Your task to perform on an android device: turn on data saver in the chrome app Image 0: 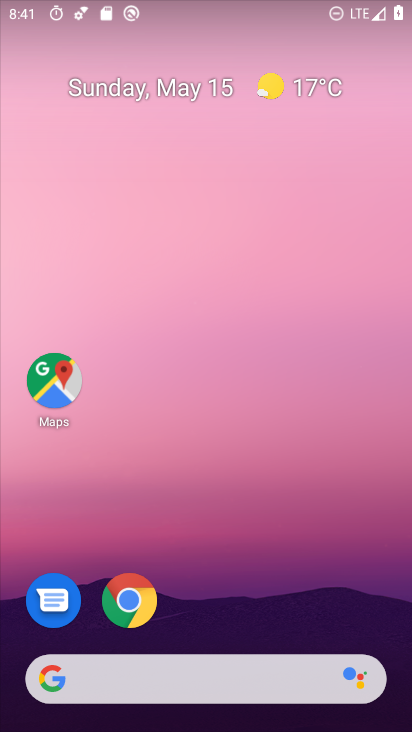
Step 0: click (131, 600)
Your task to perform on an android device: turn on data saver in the chrome app Image 1: 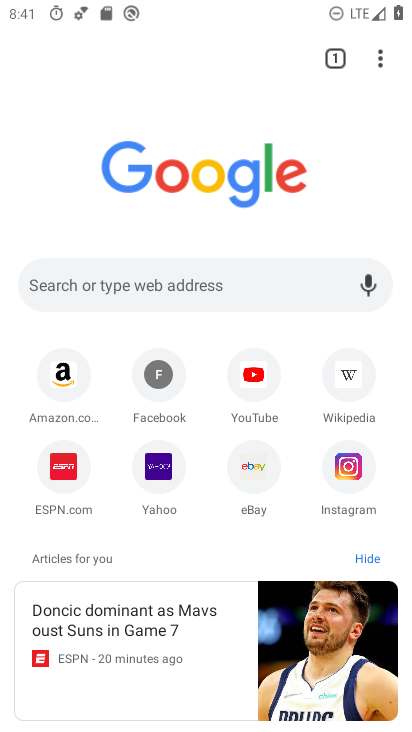
Step 1: click (381, 58)
Your task to perform on an android device: turn on data saver in the chrome app Image 2: 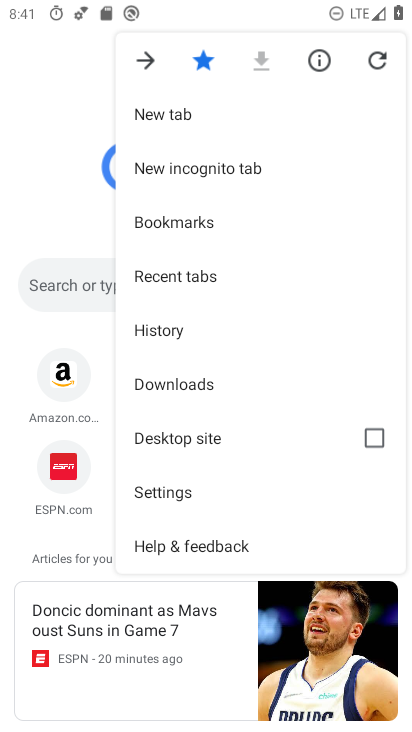
Step 2: click (161, 491)
Your task to perform on an android device: turn on data saver in the chrome app Image 3: 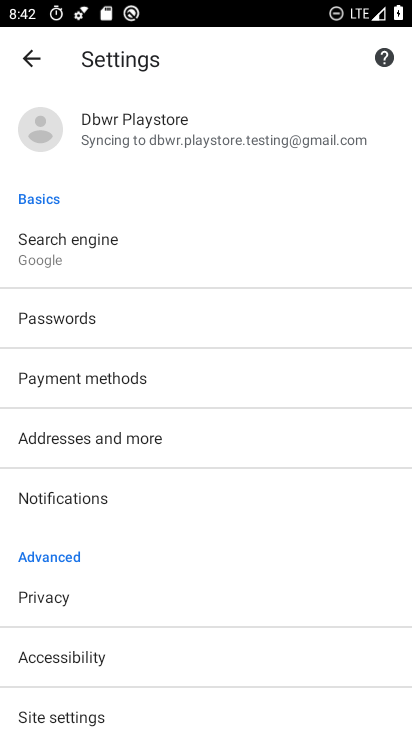
Step 3: drag from (89, 612) to (117, 332)
Your task to perform on an android device: turn on data saver in the chrome app Image 4: 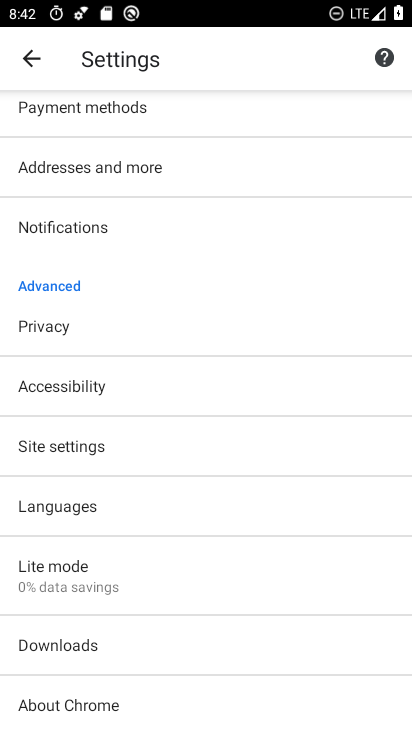
Step 4: click (65, 565)
Your task to perform on an android device: turn on data saver in the chrome app Image 5: 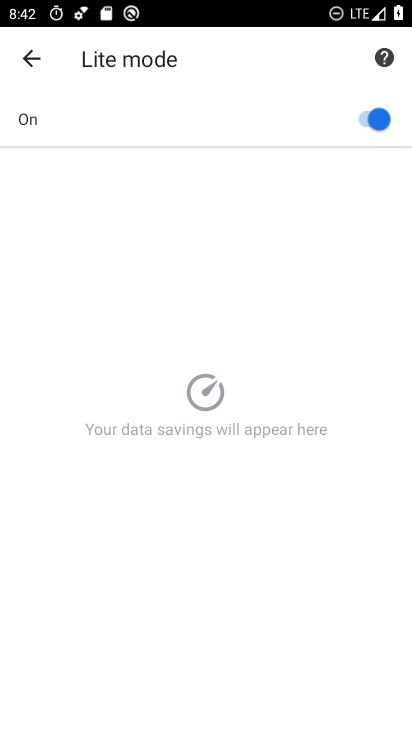
Step 5: task complete